Your task to perform on an android device: turn notification dots off Image 0: 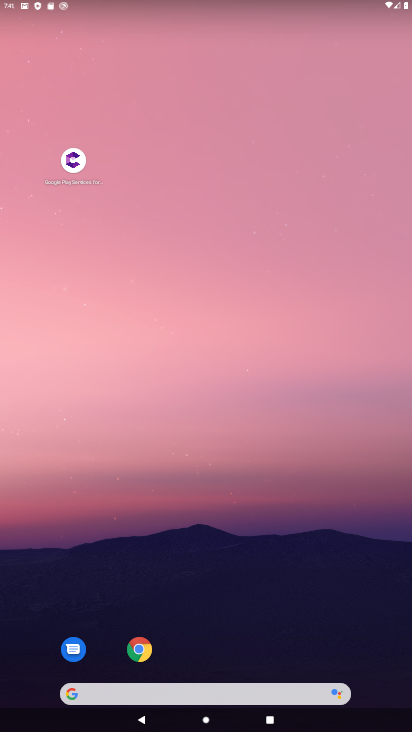
Step 0: drag from (282, 639) to (272, 197)
Your task to perform on an android device: turn notification dots off Image 1: 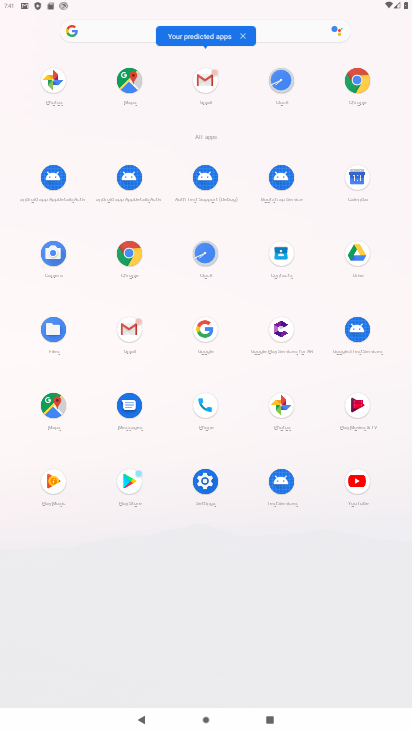
Step 1: click (207, 489)
Your task to perform on an android device: turn notification dots off Image 2: 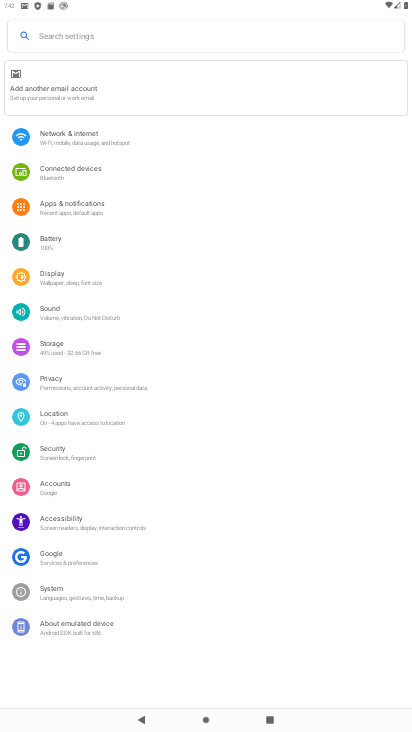
Step 2: click (84, 205)
Your task to perform on an android device: turn notification dots off Image 3: 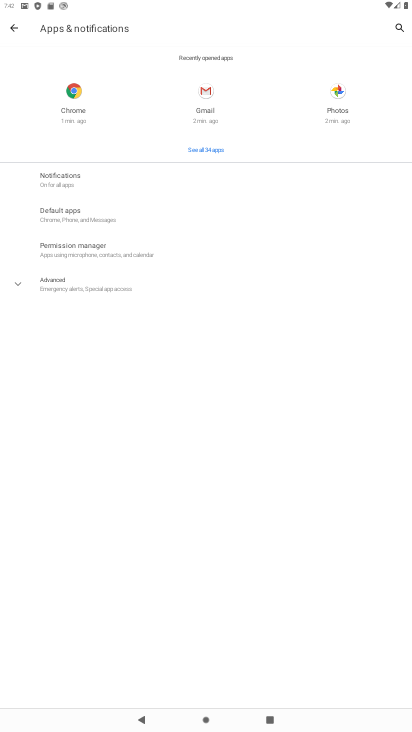
Step 3: click (74, 176)
Your task to perform on an android device: turn notification dots off Image 4: 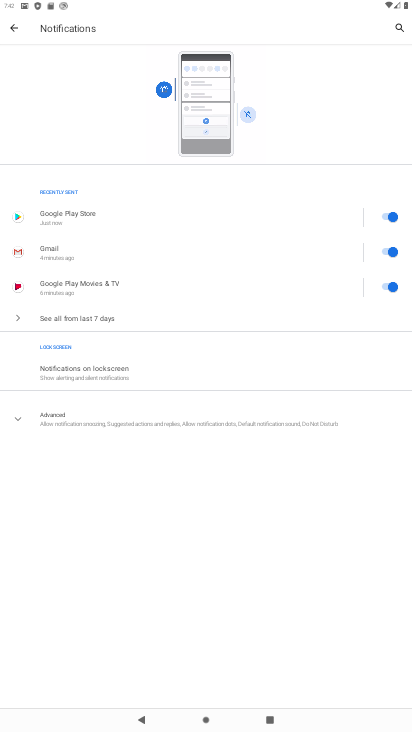
Step 4: click (102, 427)
Your task to perform on an android device: turn notification dots off Image 5: 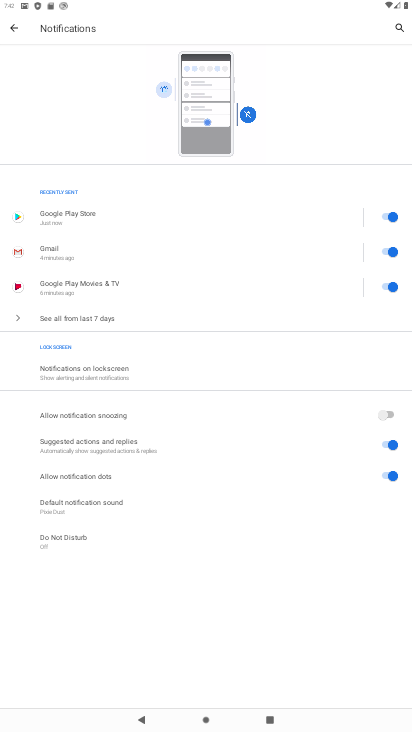
Step 5: click (381, 481)
Your task to perform on an android device: turn notification dots off Image 6: 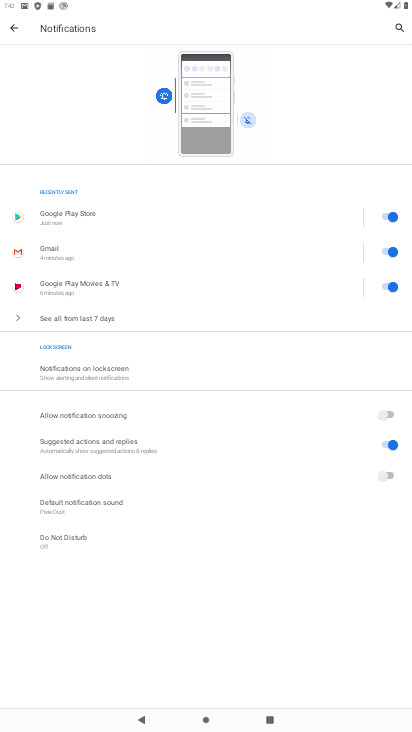
Step 6: task complete